Your task to perform on an android device: allow cookies in the chrome app Image 0: 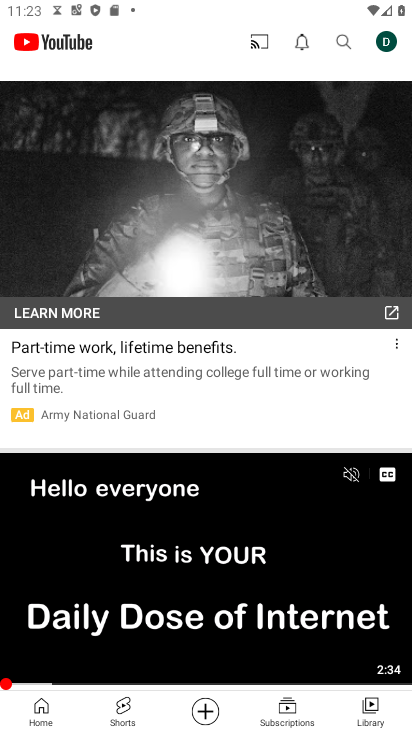
Step 0: press home button
Your task to perform on an android device: allow cookies in the chrome app Image 1: 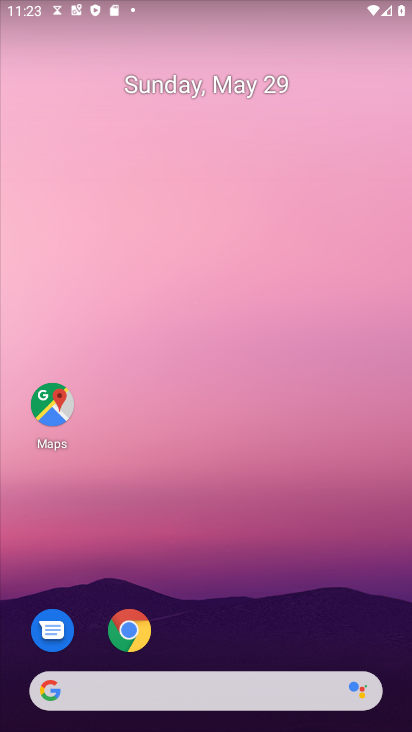
Step 1: click (144, 640)
Your task to perform on an android device: allow cookies in the chrome app Image 2: 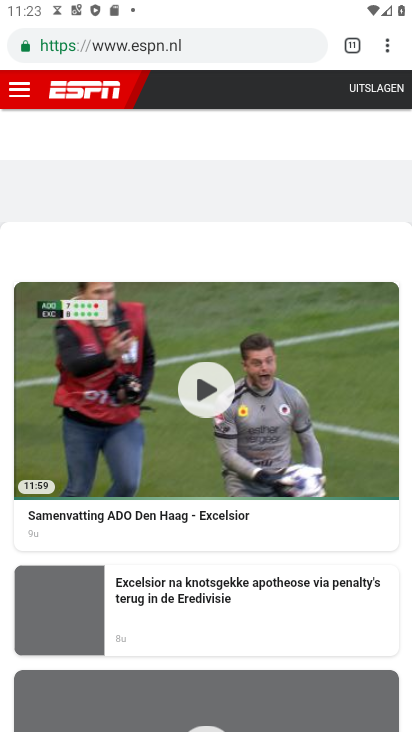
Step 2: click (390, 43)
Your task to perform on an android device: allow cookies in the chrome app Image 3: 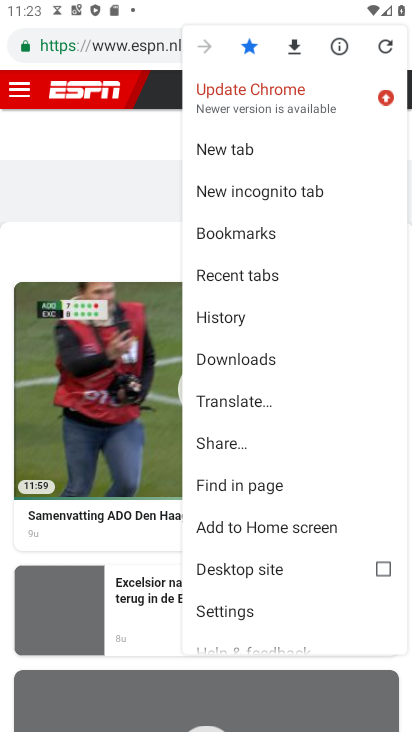
Step 3: click (286, 612)
Your task to perform on an android device: allow cookies in the chrome app Image 4: 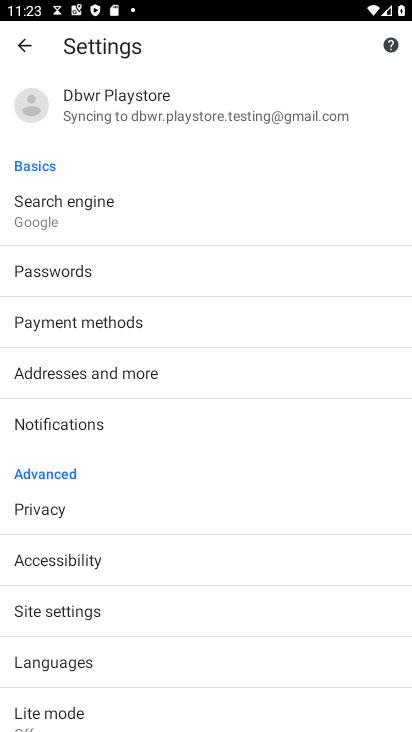
Step 4: click (39, 612)
Your task to perform on an android device: allow cookies in the chrome app Image 5: 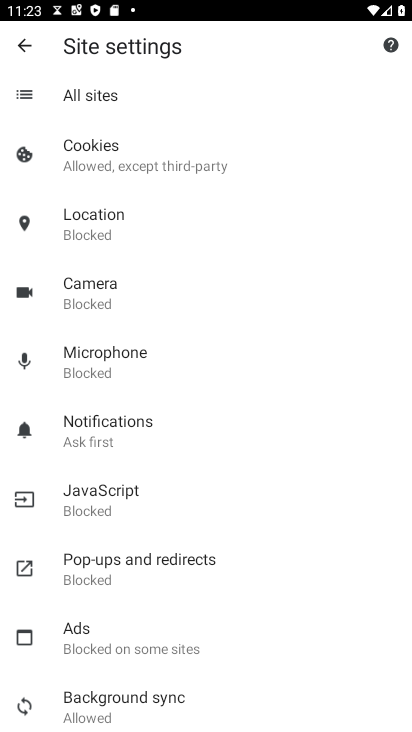
Step 5: click (118, 164)
Your task to perform on an android device: allow cookies in the chrome app Image 6: 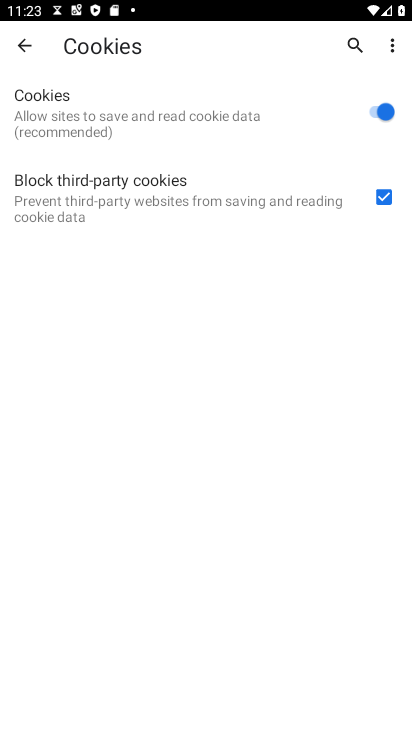
Step 6: task complete